Your task to perform on an android device: install app "Nova Launcher" Image 0: 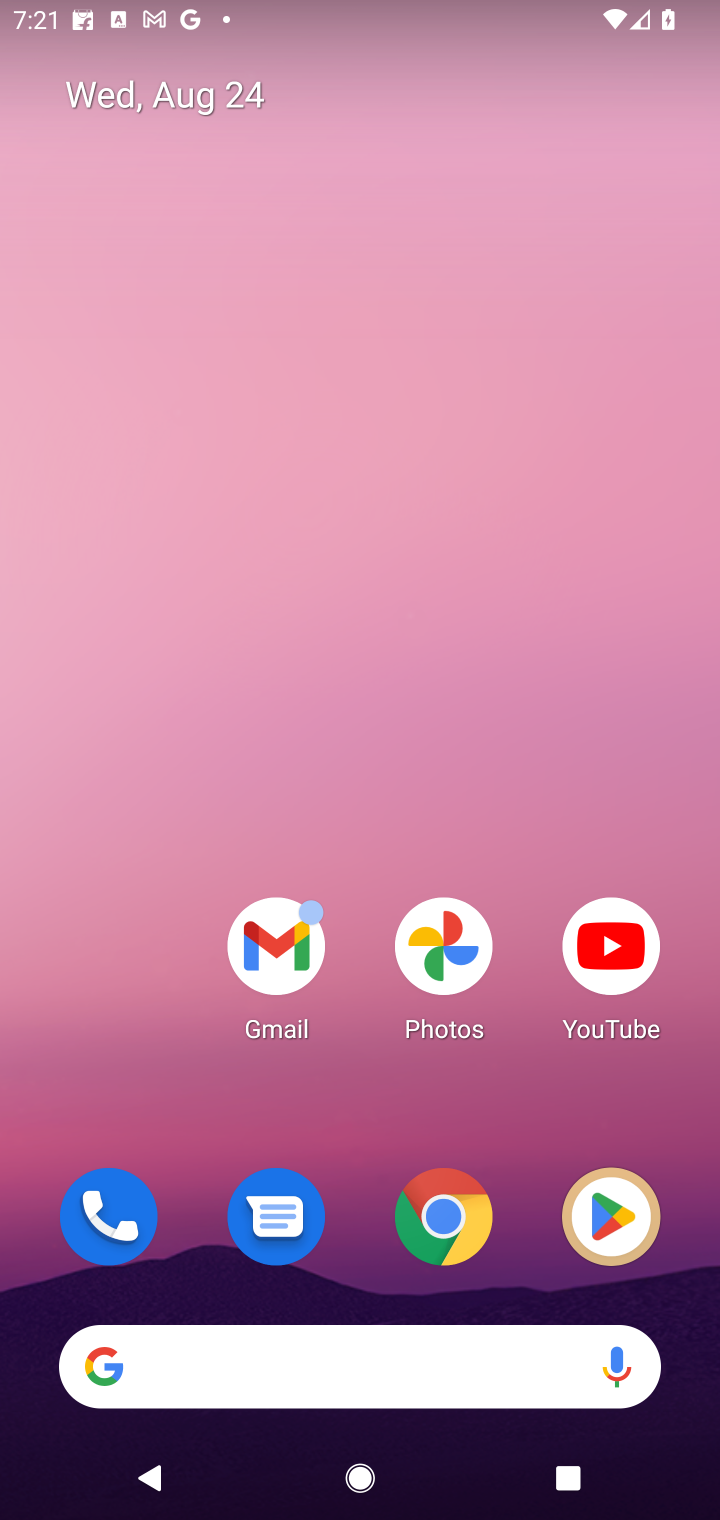
Step 0: click (598, 1207)
Your task to perform on an android device: install app "Nova Launcher" Image 1: 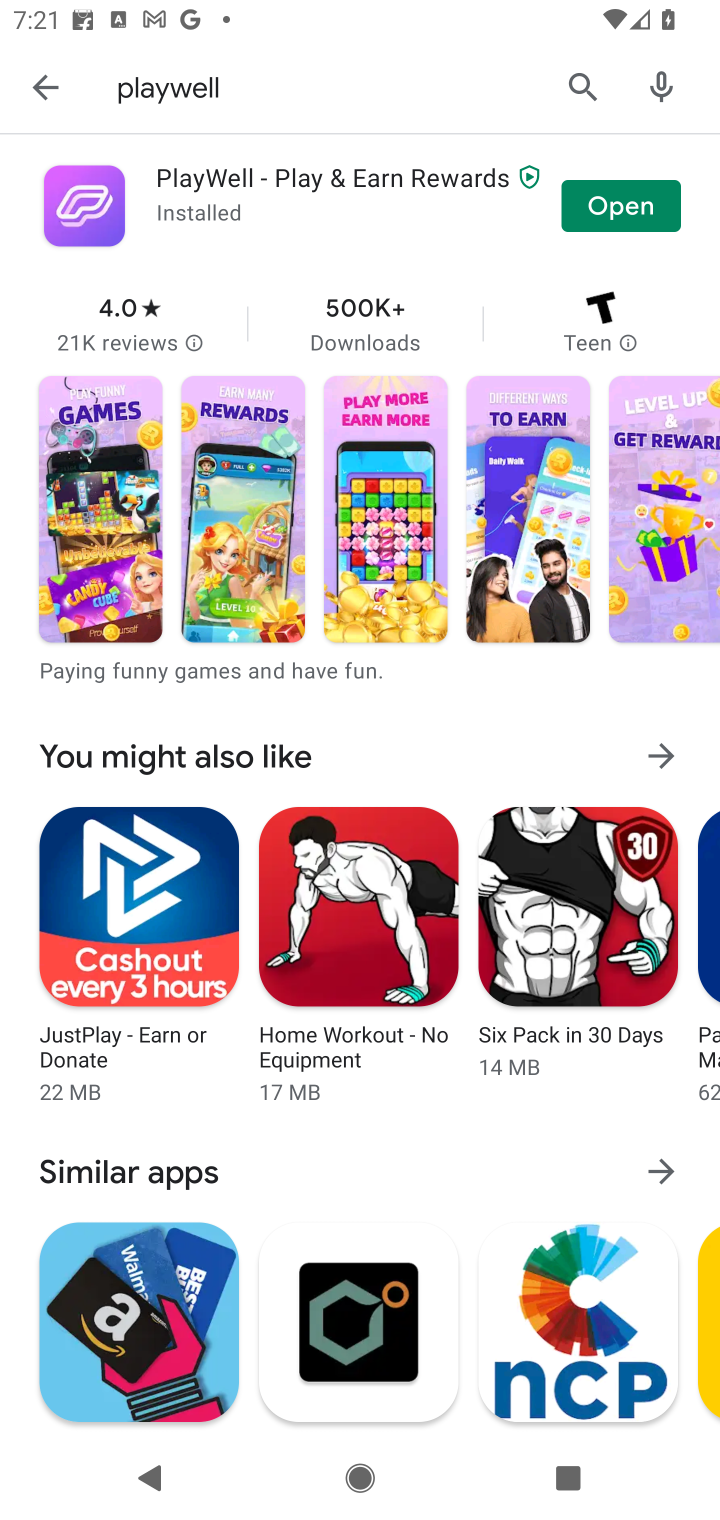
Step 1: click (573, 77)
Your task to perform on an android device: install app "Nova Launcher" Image 2: 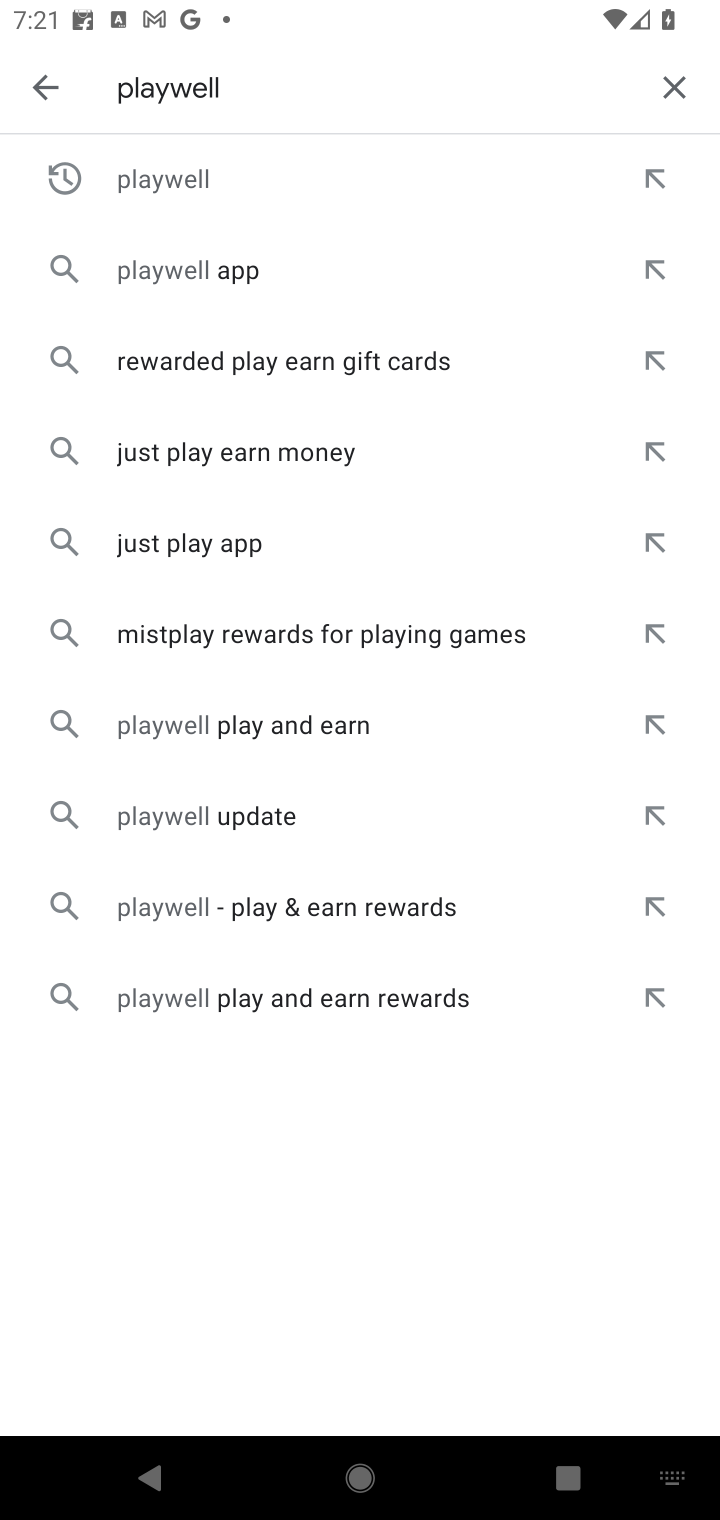
Step 2: click (664, 82)
Your task to perform on an android device: install app "Nova Launcher" Image 3: 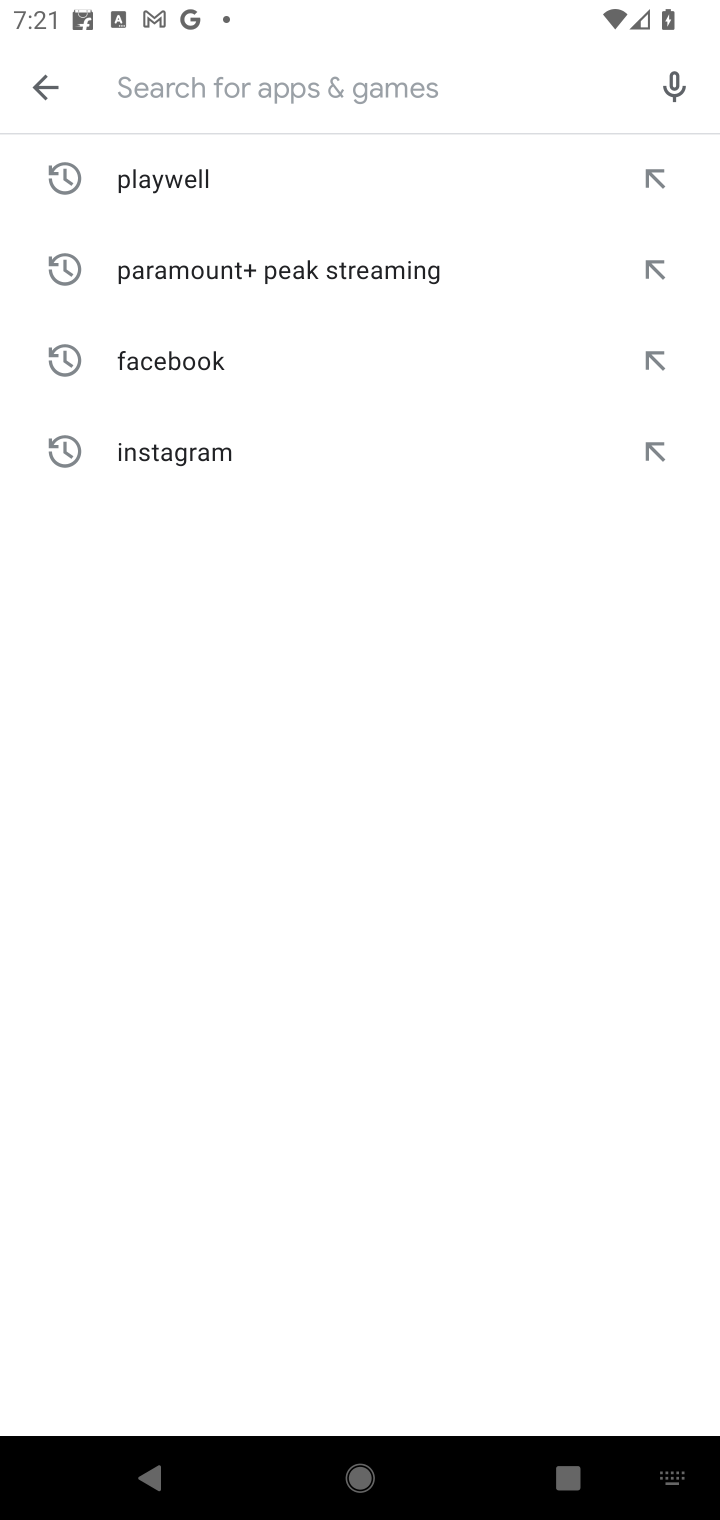
Step 3: type "Nova Launcher"
Your task to perform on an android device: install app "Nova Launcher" Image 4: 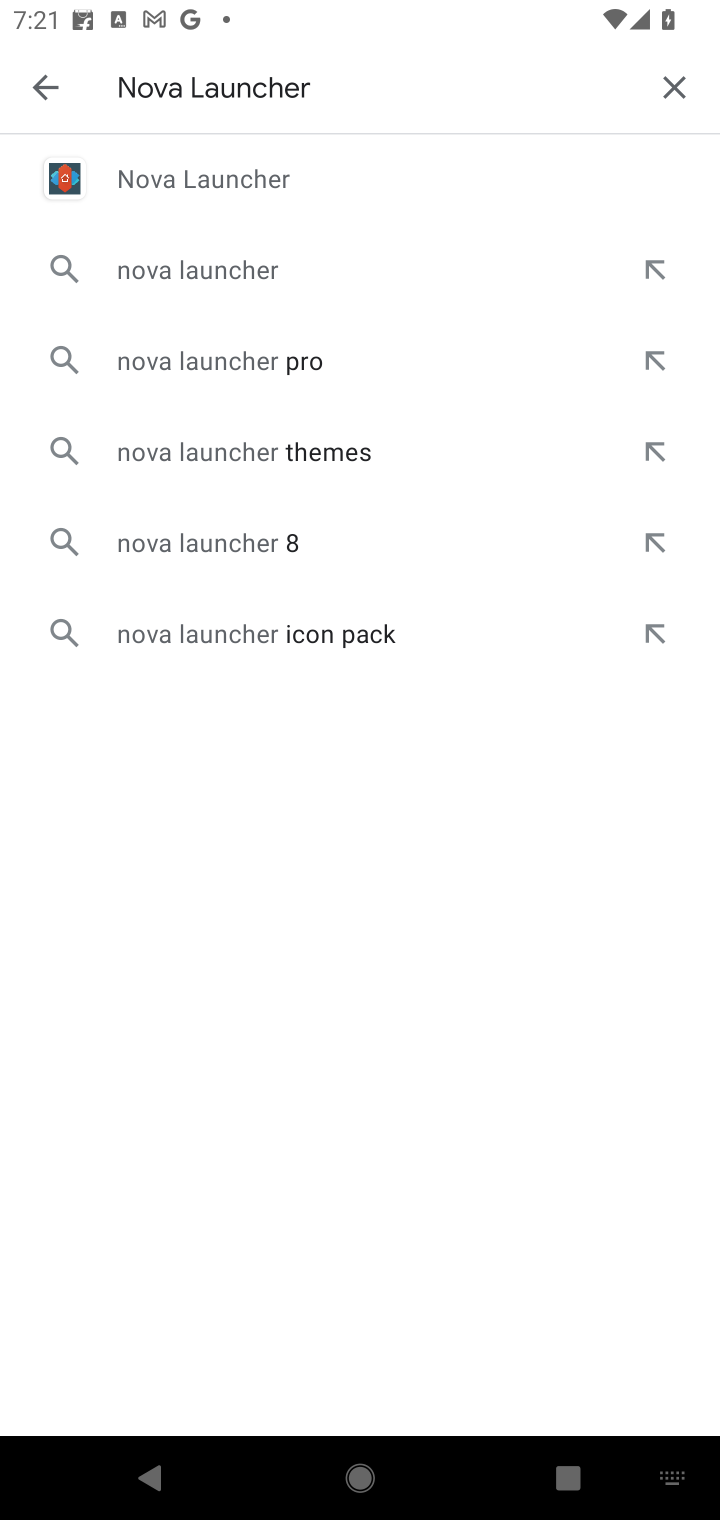
Step 4: click (321, 173)
Your task to perform on an android device: install app "Nova Launcher" Image 5: 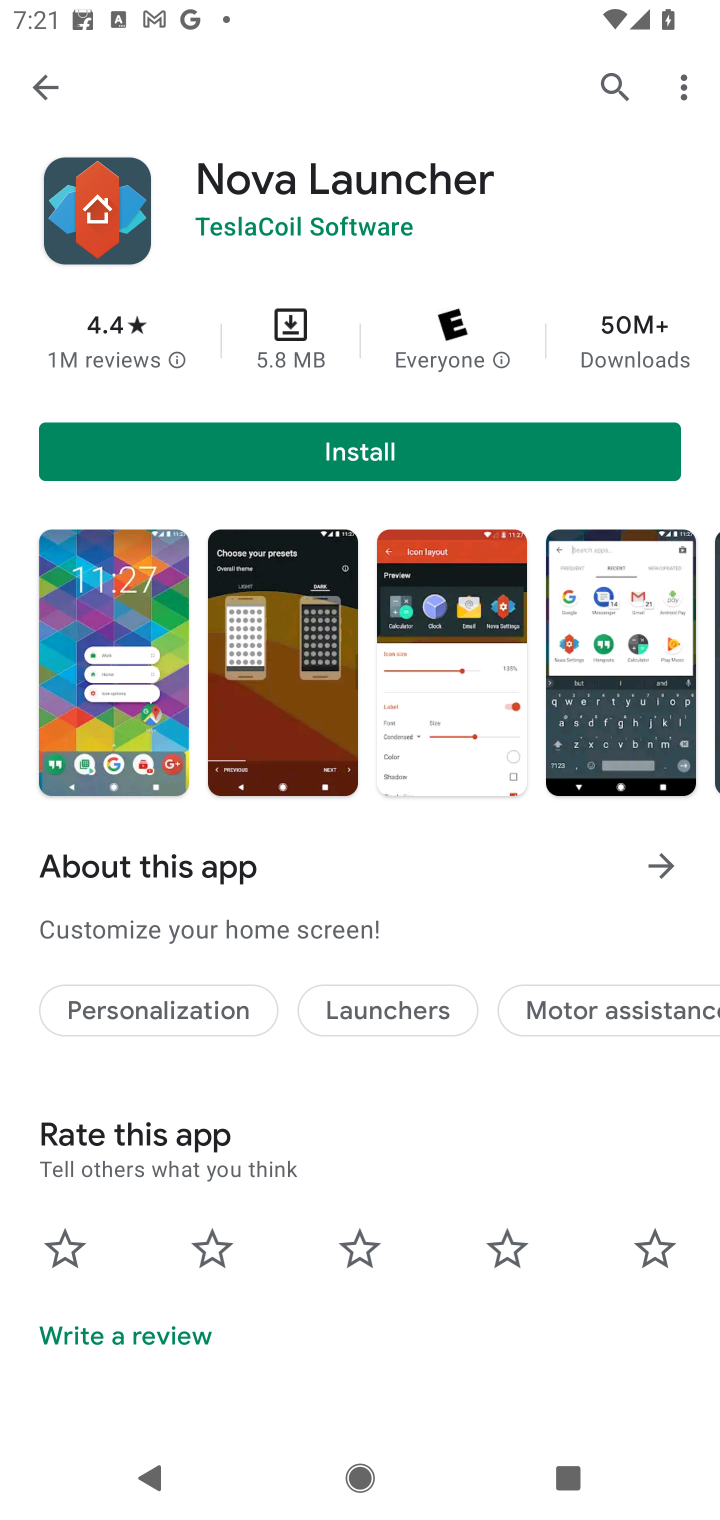
Step 5: click (377, 452)
Your task to perform on an android device: install app "Nova Launcher" Image 6: 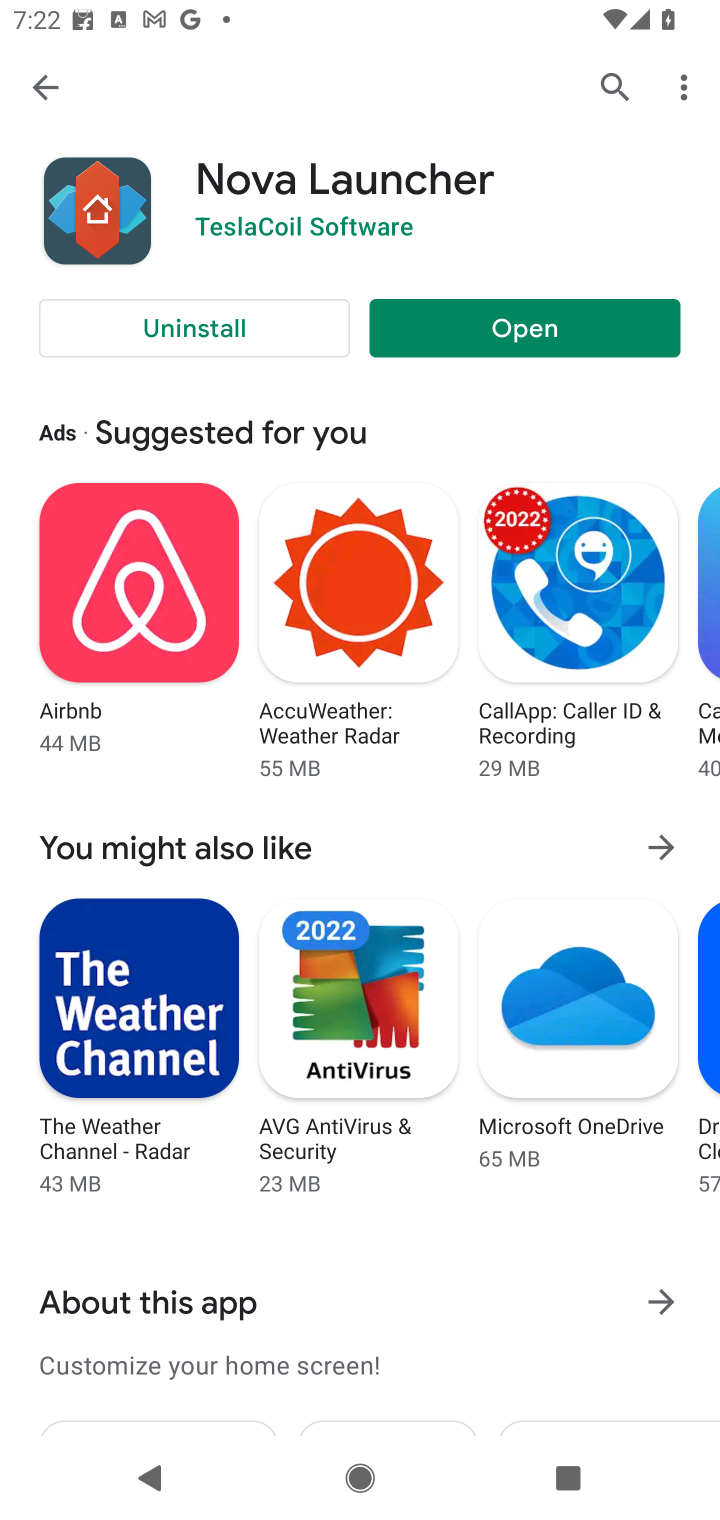
Step 6: task complete